Your task to perform on an android device: Open calendar and show me the fourth week of next month Image 0: 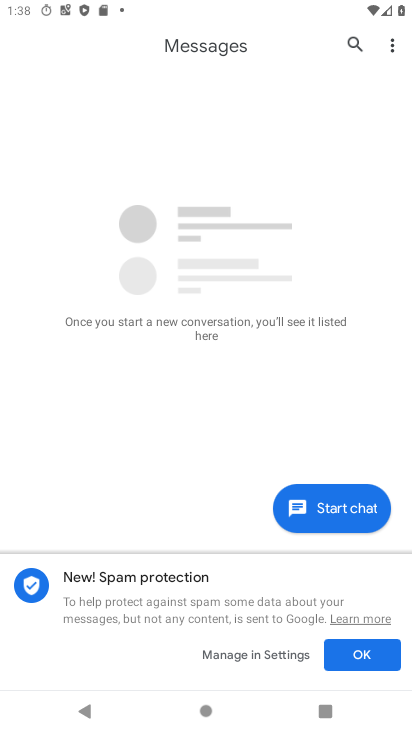
Step 0: press home button
Your task to perform on an android device: Open calendar and show me the fourth week of next month Image 1: 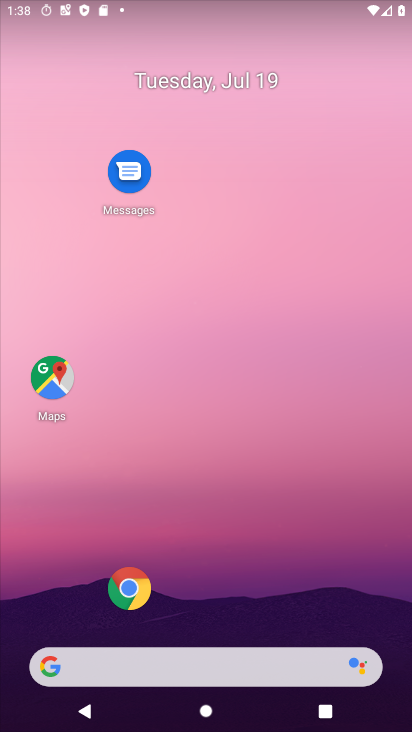
Step 1: drag from (18, 667) to (169, 101)
Your task to perform on an android device: Open calendar and show me the fourth week of next month Image 2: 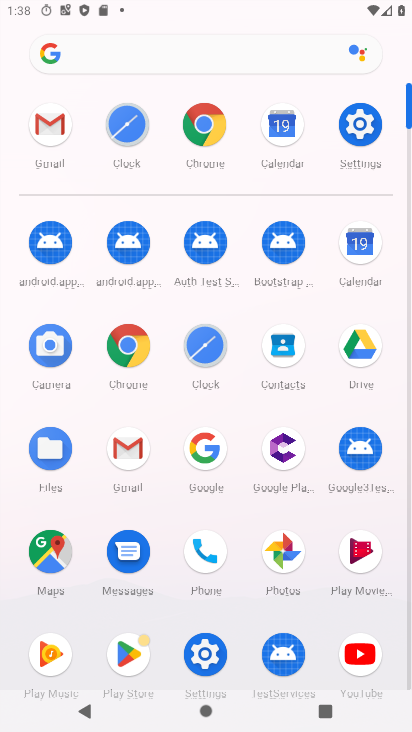
Step 2: click (356, 251)
Your task to perform on an android device: Open calendar and show me the fourth week of next month Image 3: 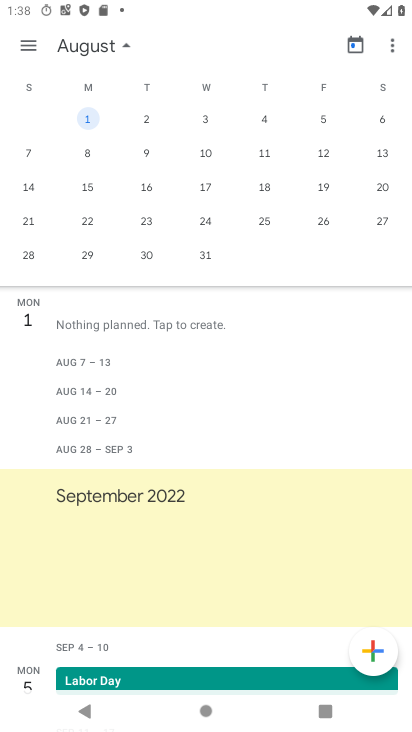
Step 3: click (83, 217)
Your task to perform on an android device: Open calendar and show me the fourth week of next month Image 4: 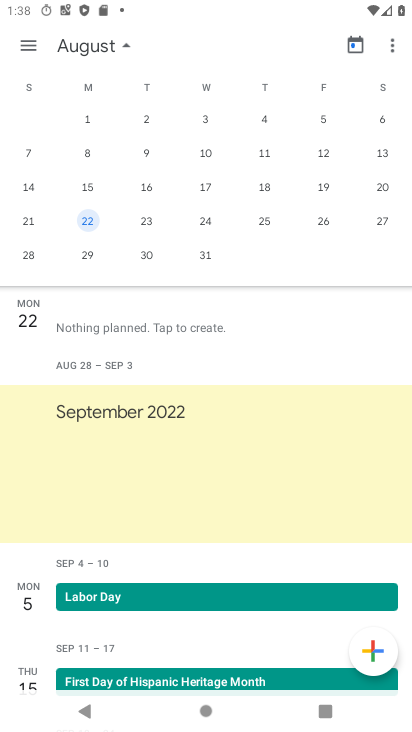
Step 4: task complete